Your task to perform on an android device: open app "WhatsApp Messenger" Image 0: 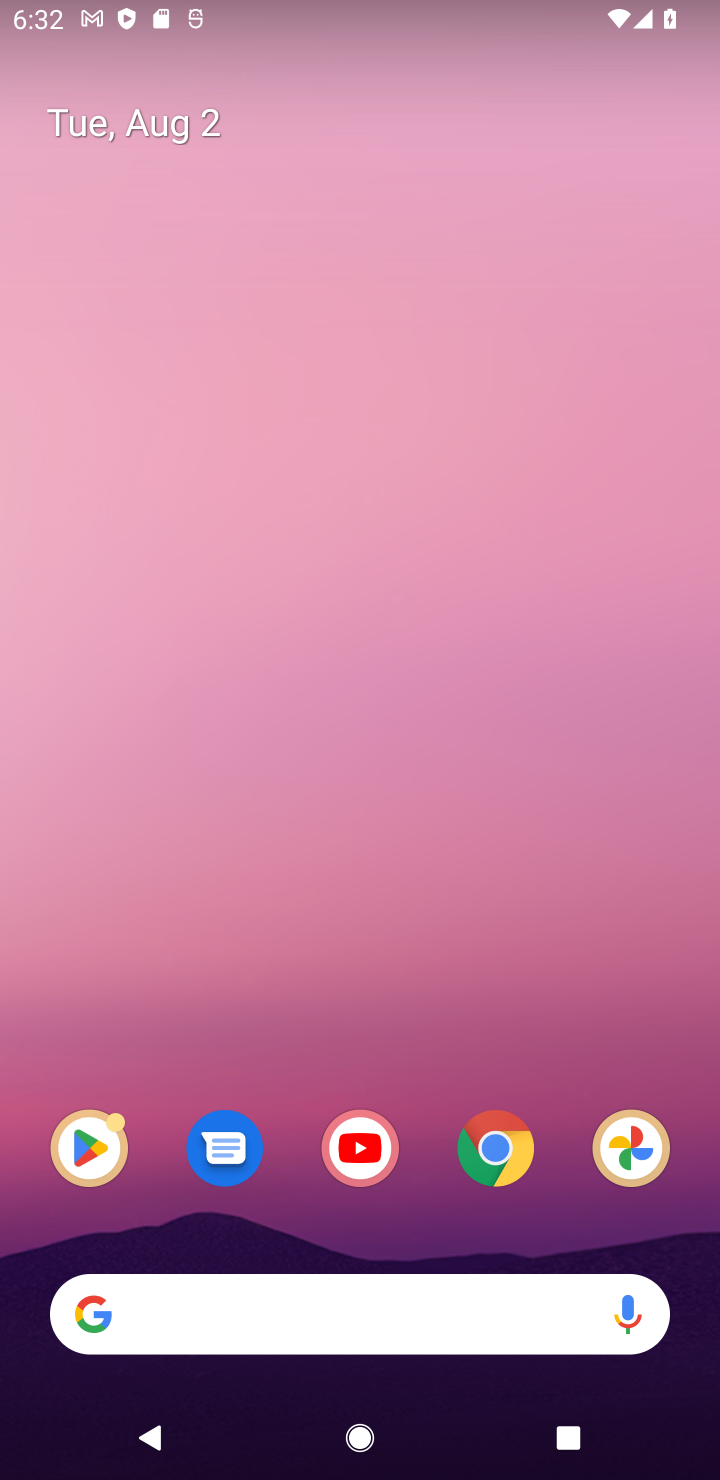
Step 0: drag from (483, 986) to (156, 6)
Your task to perform on an android device: open app "WhatsApp Messenger" Image 1: 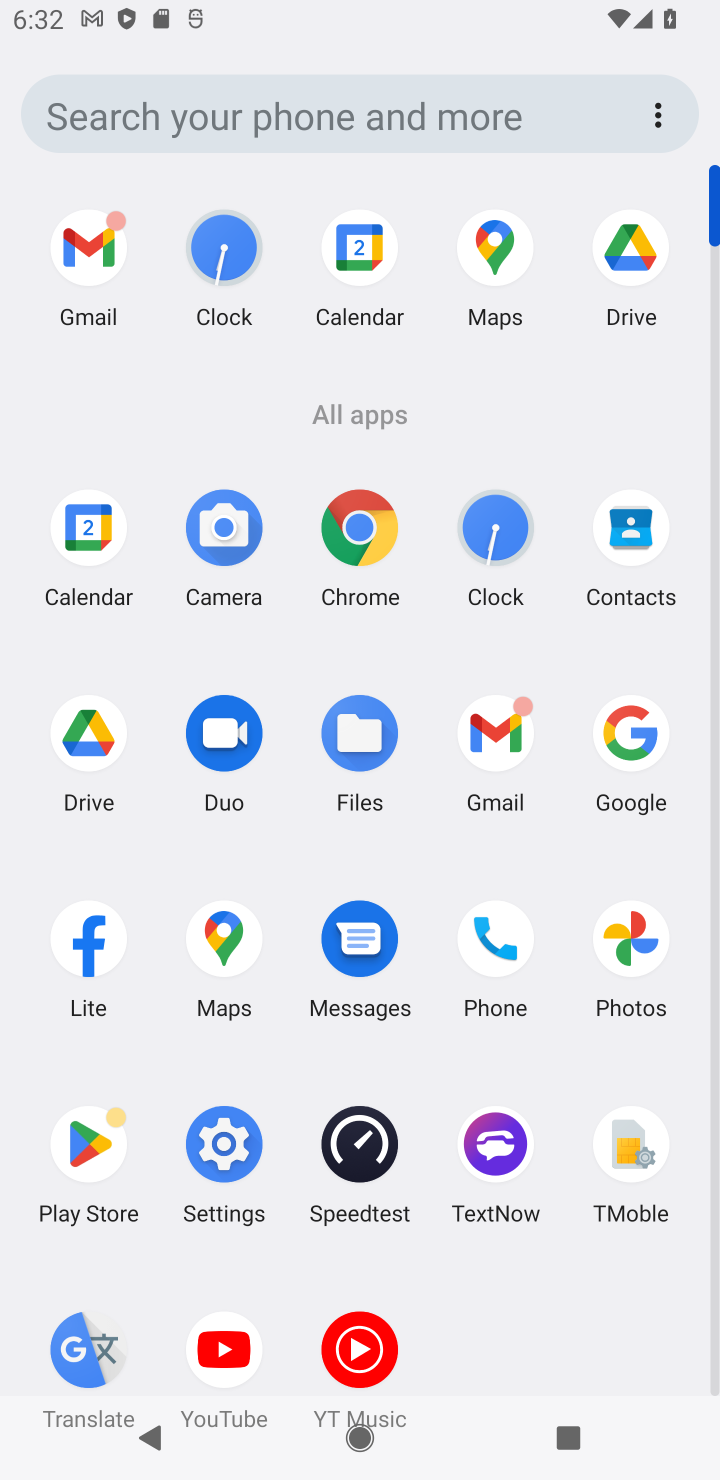
Step 1: click (90, 1161)
Your task to perform on an android device: open app "WhatsApp Messenger" Image 2: 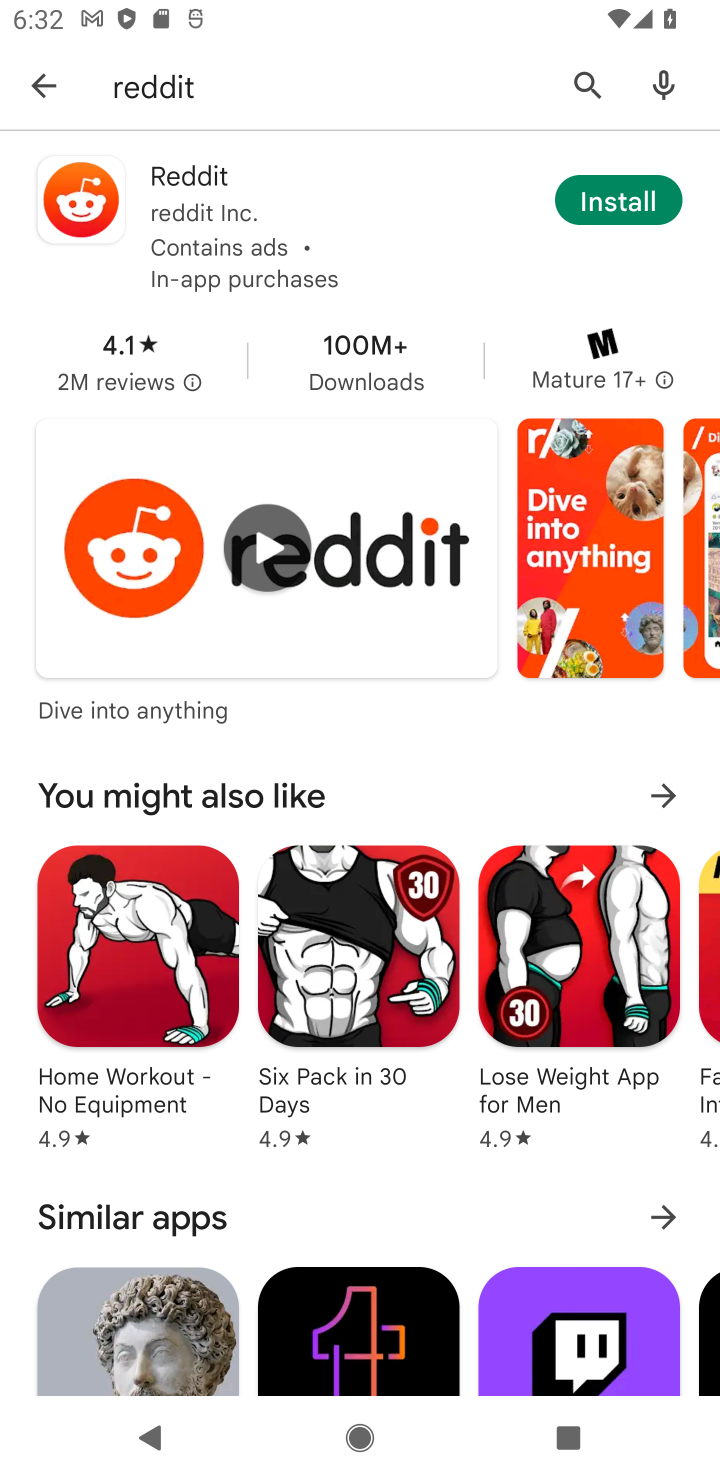
Step 2: press back button
Your task to perform on an android device: open app "WhatsApp Messenger" Image 3: 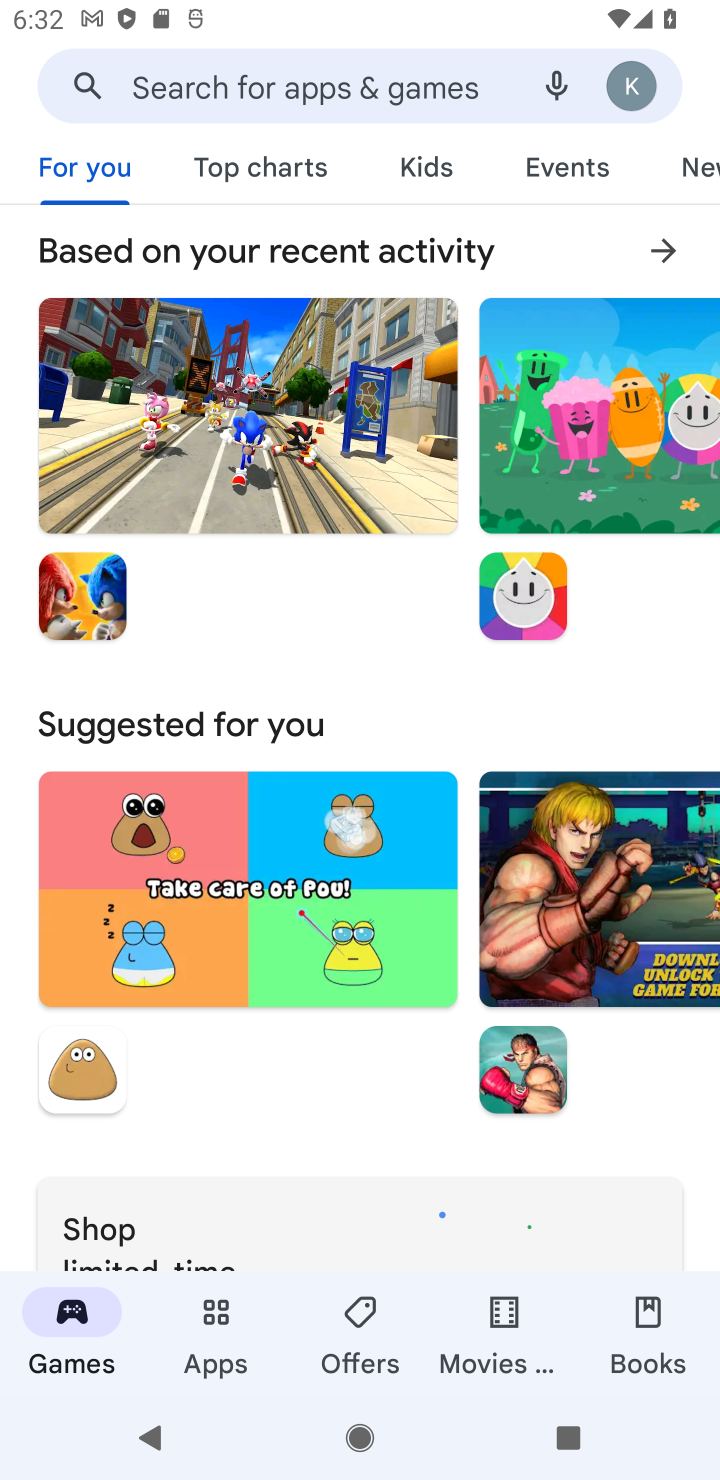
Step 3: click (209, 95)
Your task to perform on an android device: open app "WhatsApp Messenger" Image 4: 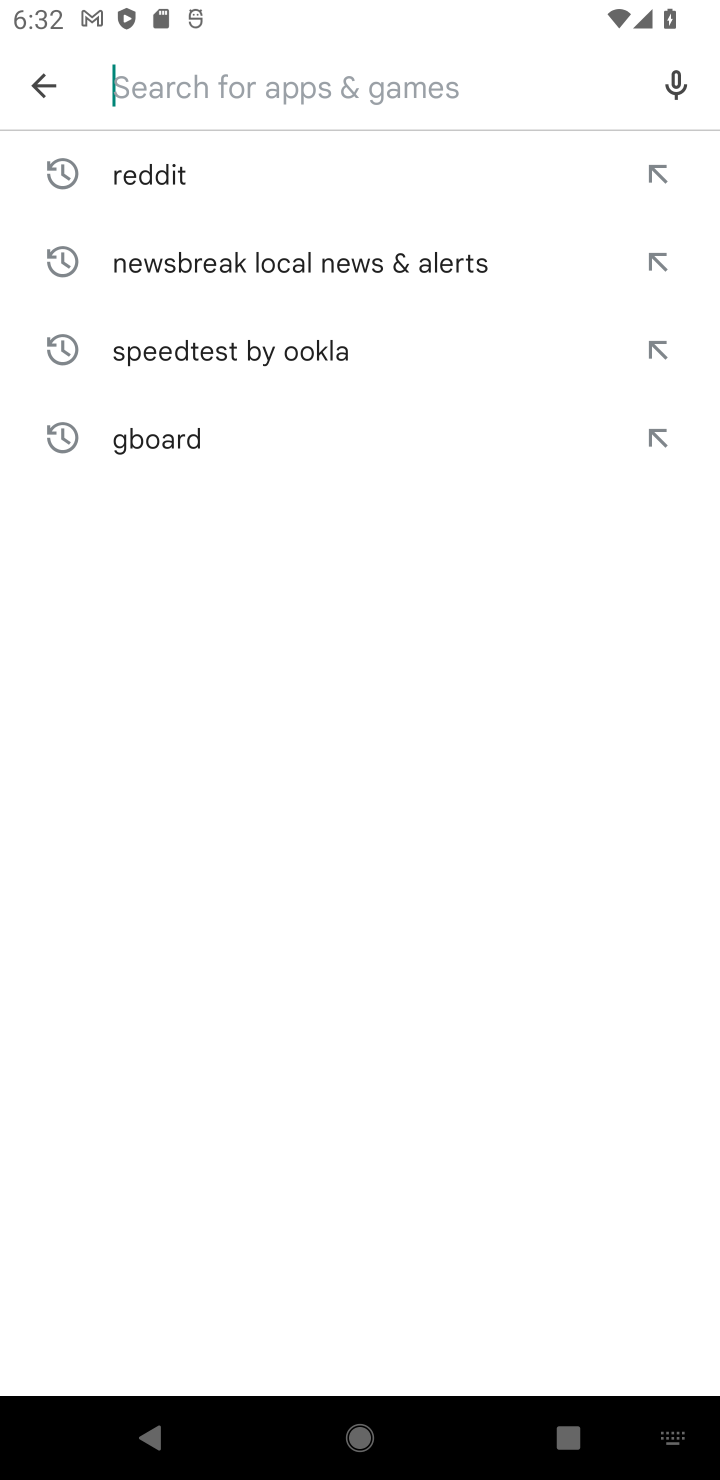
Step 4: type "WhatsApp Messenger"
Your task to perform on an android device: open app "WhatsApp Messenger" Image 5: 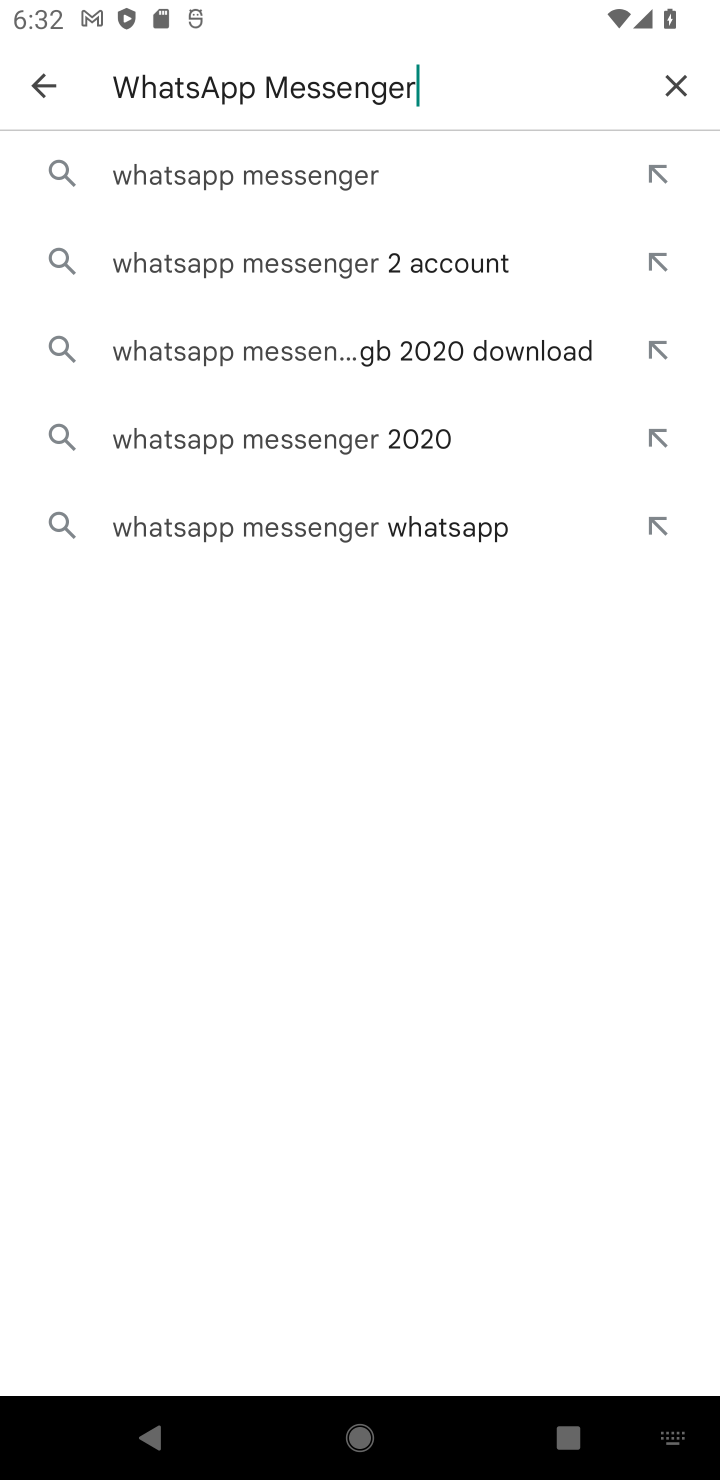
Step 5: click (193, 182)
Your task to perform on an android device: open app "WhatsApp Messenger" Image 6: 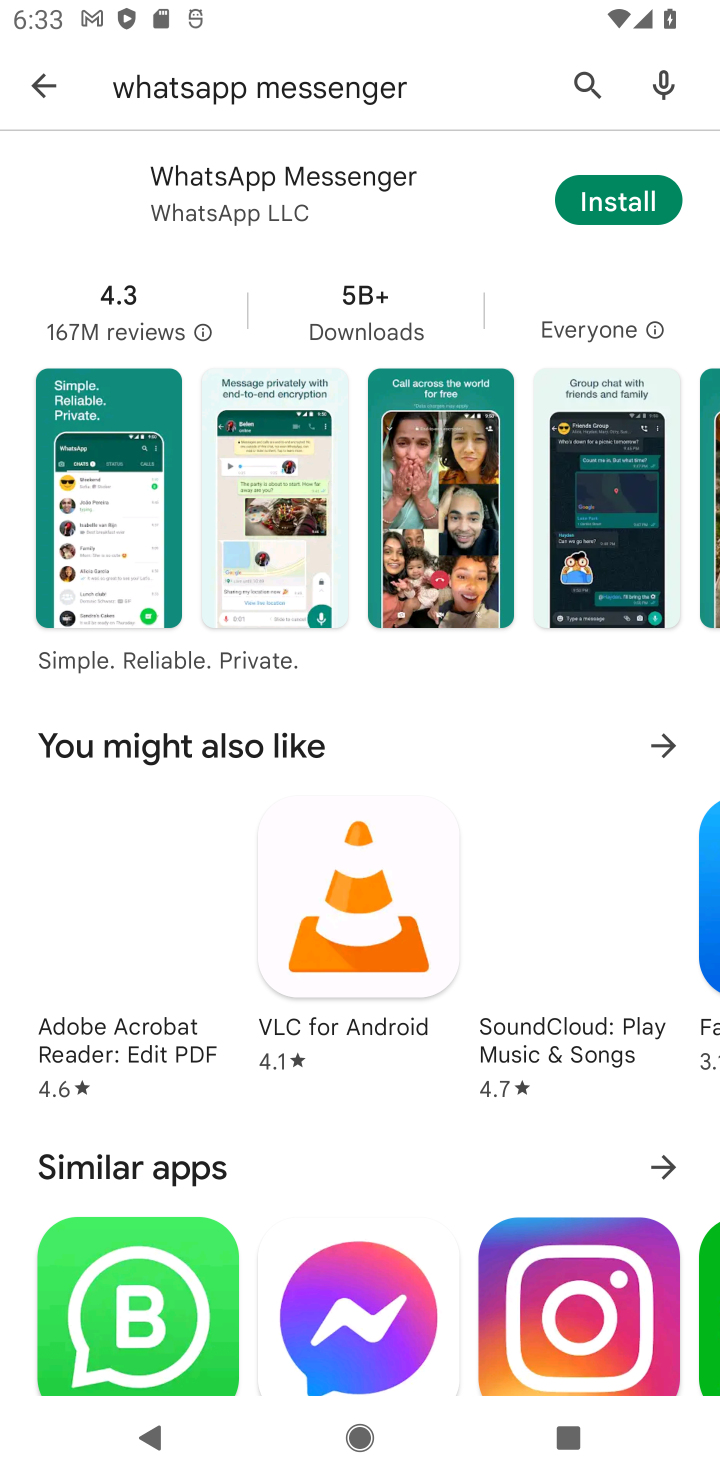
Step 6: task complete